Your task to perform on an android device: Go to display settings Image 0: 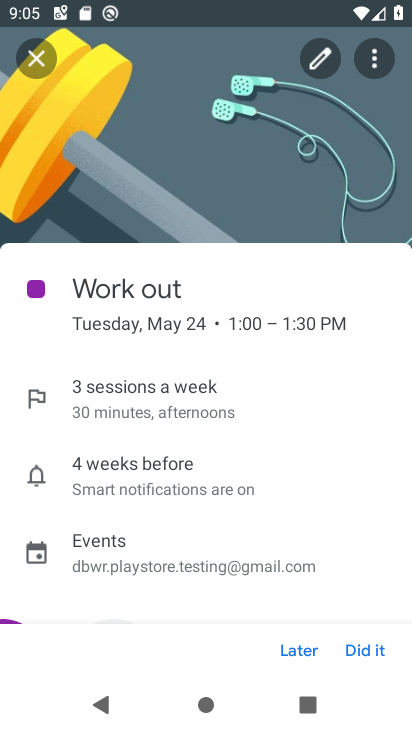
Step 0: press home button
Your task to perform on an android device: Go to display settings Image 1: 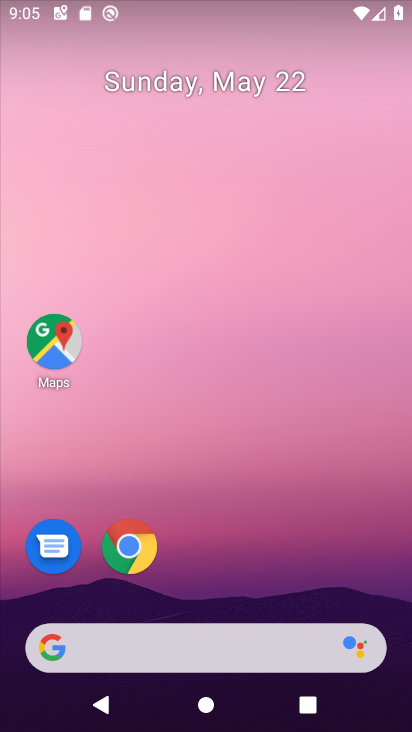
Step 1: drag from (358, 584) to (348, 112)
Your task to perform on an android device: Go to display settings Image 2: 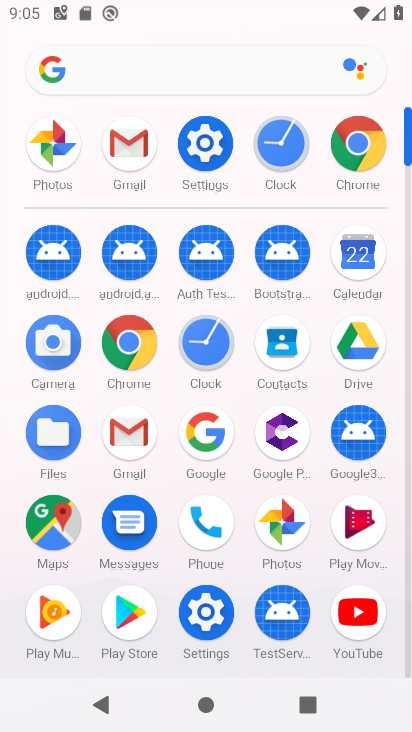
Step 2: click (204, 349)
Your task to perform on an android device: Go to display settings Image 3: 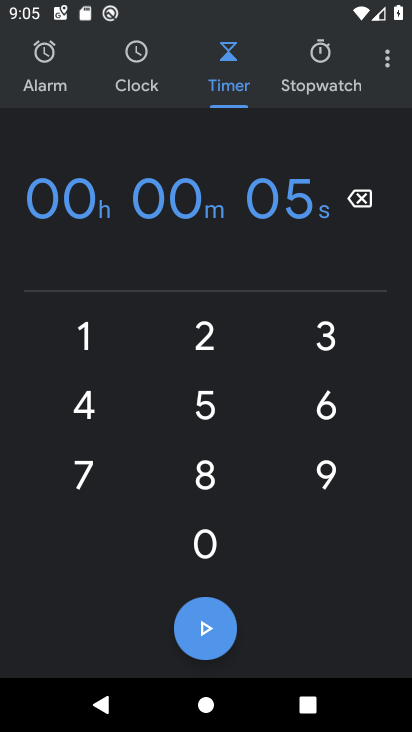
Step 3: click (201, 406)
Your task to perform on an android device: Go to display settings Image 4: 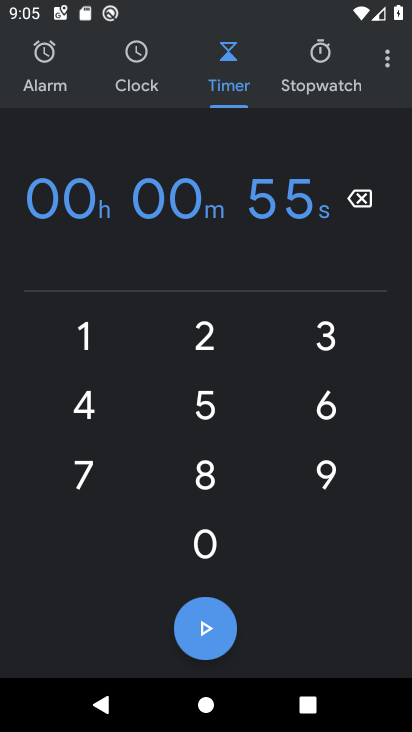
Step 4: task complete